Your task to perform on an android device: Open network settings Image 0: 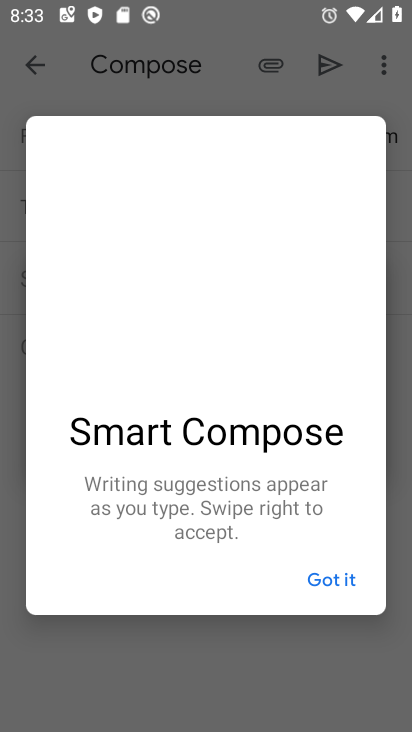
Step 0: press home button
Your task to perform on an android device: Open network settings Image 1: 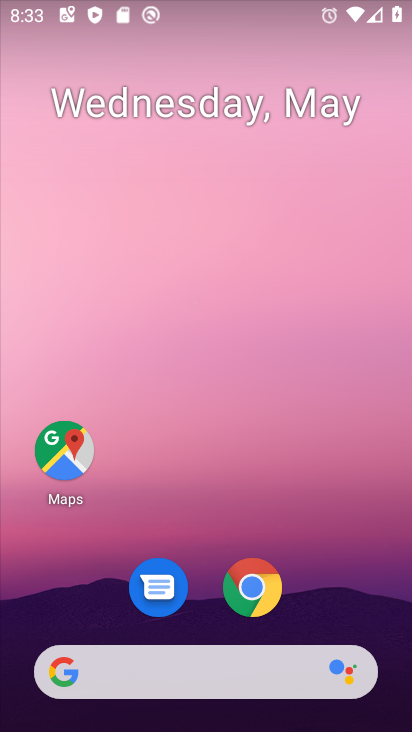
Step 1: drag from (206, 624) to (236, 78)
Your task to perform on an android device: Open network settings Image 2: 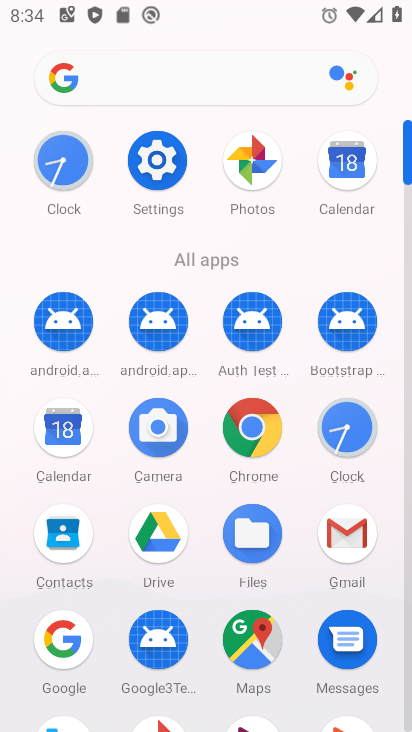
Step 2: click (158, 181)
Your task to perform on an android device: Open network settings Image 3: 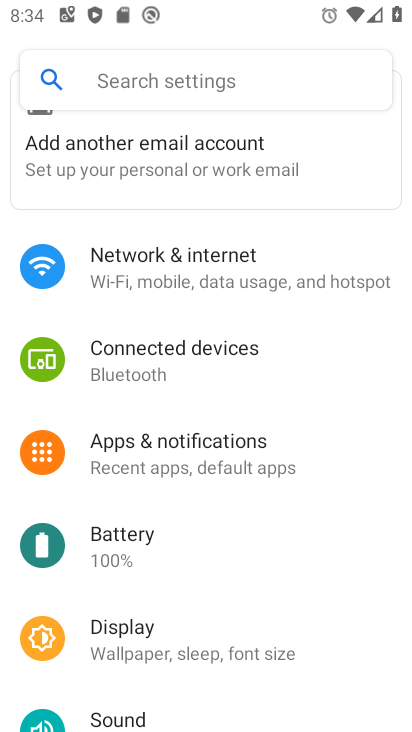
Step 3: click (194, 277)
Your task to perform on an android device: Open network settings Image 4: 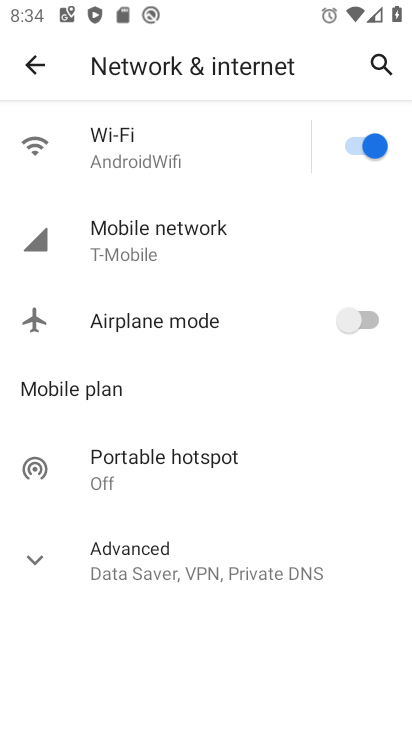
Step 4: task complete